Your task to perform on an android device: Search for Mexican restaurants on Maps Image 0: 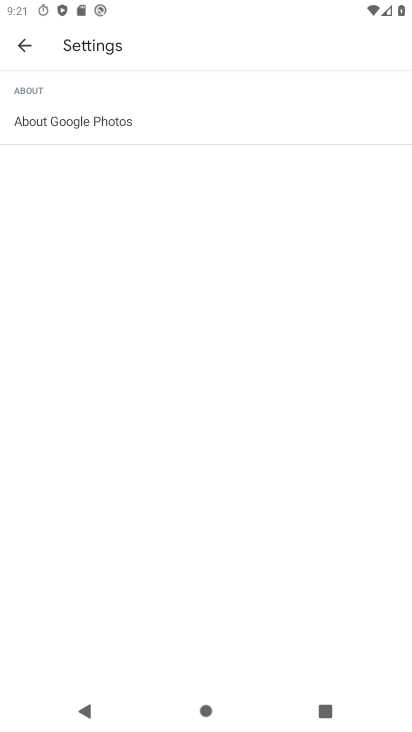
Step 0: press home button
Your task to perform on an android device: Search for Mexican restaurants on Maps Image 1: 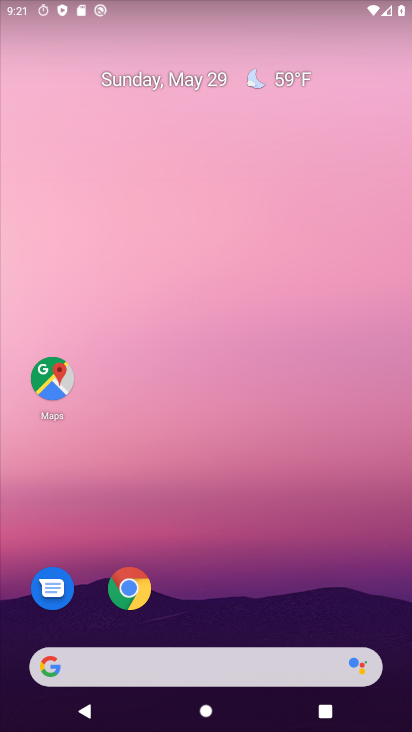
Step 1: click (51, 382)
Your task to perform on an android device: Search for Mexican restaurants on Maps Image 2: 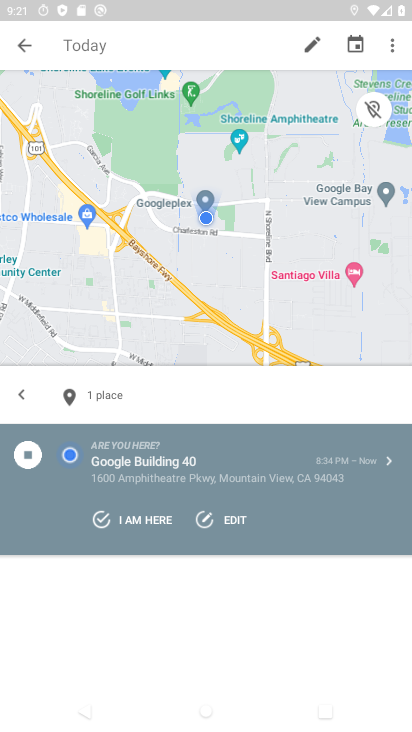
Step 2: click (21, 53)
Your task to perform on an android device: Search for Mexican restaurants on Maps Image 3: 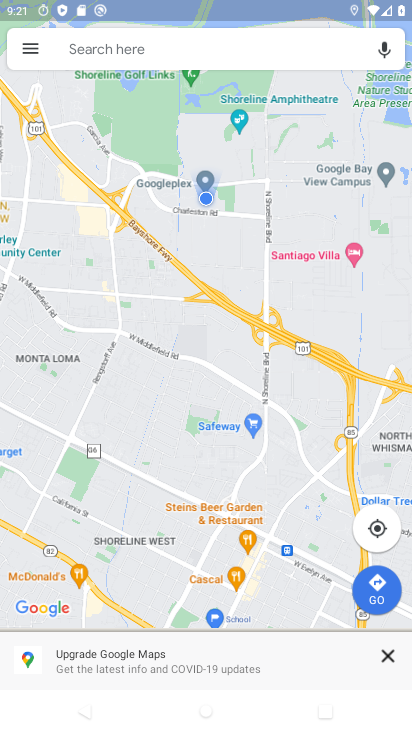
Step 3: click (142, 43)
Your task to perform on an android device: Search for Mexican restaurants on Maps Image 4: 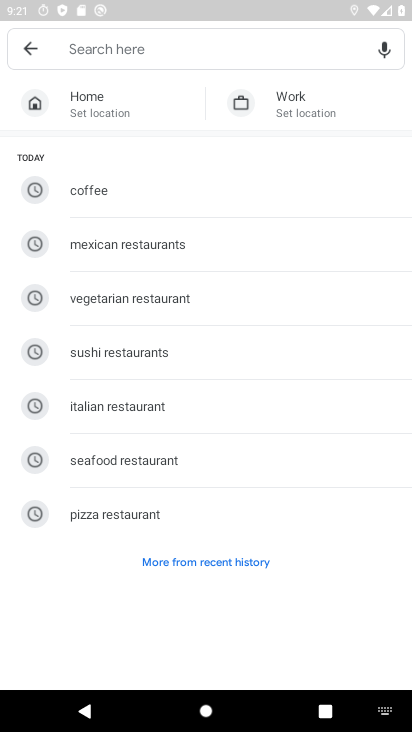
Step 4: type "Mexican restaurants"
Your task to perform on an android device: Search for Mexican restaurants on Maps Image 5: 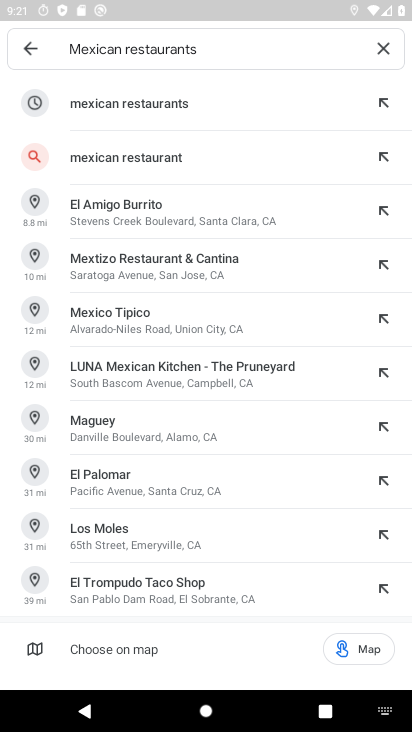
Step 5: click (172, 115)
Your task to perform on an android device: Search for Mexican restaurants on Maps Image 6: 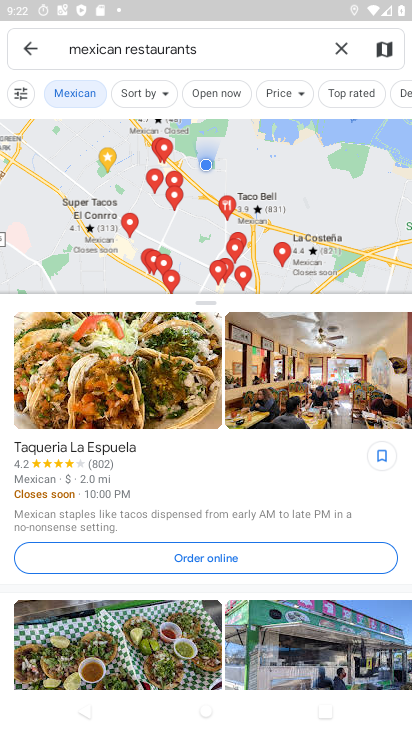
Step 6: task complete